Your task to perform on an android device: turn on notifications settings in the gmail app Image 0: 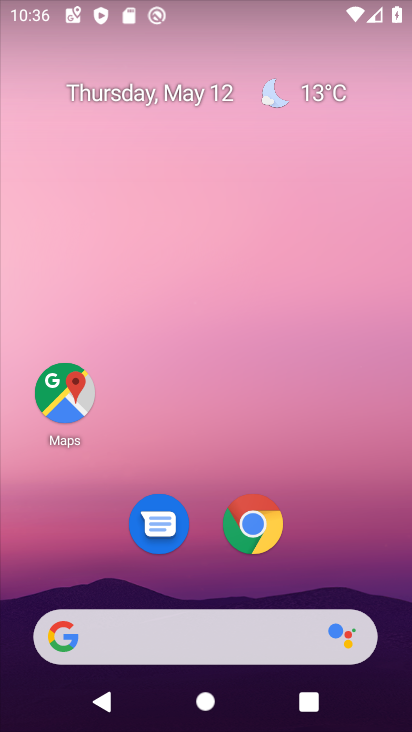
Step 0: drag from (334, 521) to (357, 46)
Your task to perform on an android device: turn on notifications settings in the gmail app Image 1: 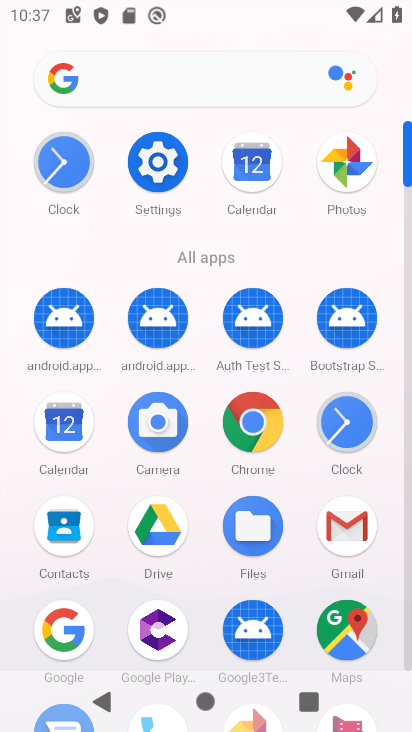
Step 1: click (340, 512)
Your task to perform on an android device: turn on notifications settings in the gmail app Image 2: 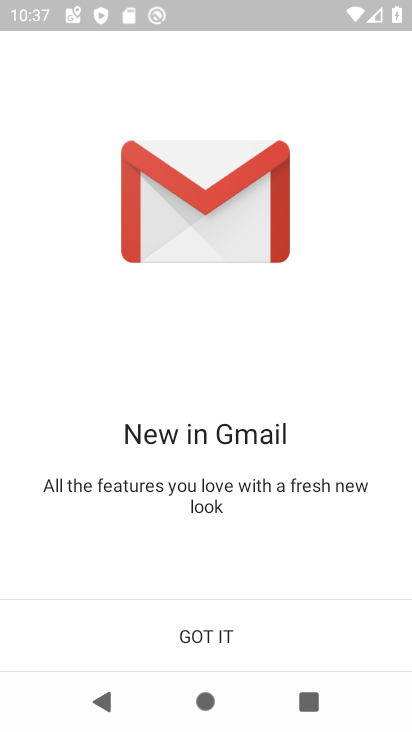
Step 2: click (283, 632)
Your task to perform on an android device: turn on notifications settings in the gmail app Image 3: 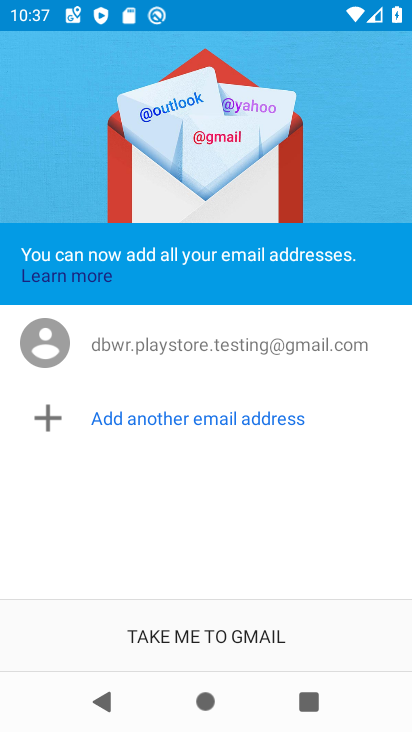
Step 3: click (283, 632)
Your task to perform on an android device: turn on notifications settings in the gmail app Image 4: 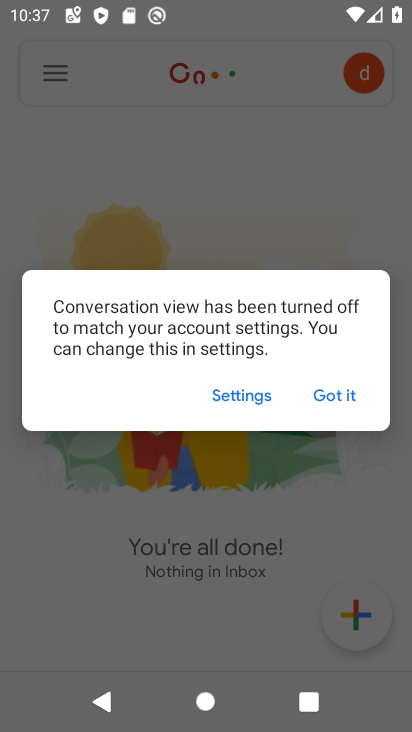
Step 4: click (347, 391)
Your task to perform on an android device: turn on notifications settings in the gmail app Image 5: 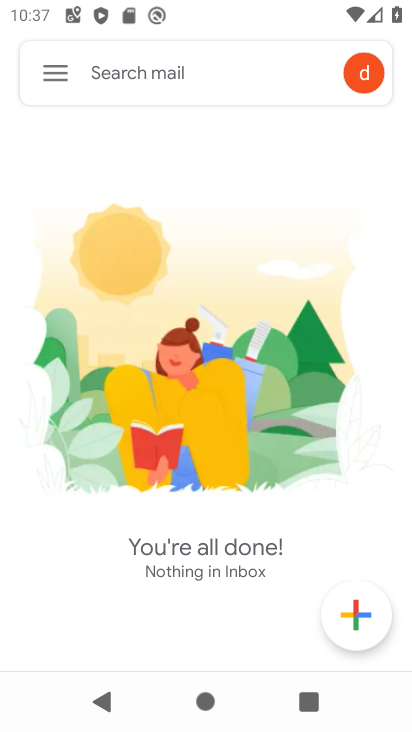
Step 5: click (55, 65)
Your task to perform on an android device: turn on notifications settings in the gmail app Image 6: 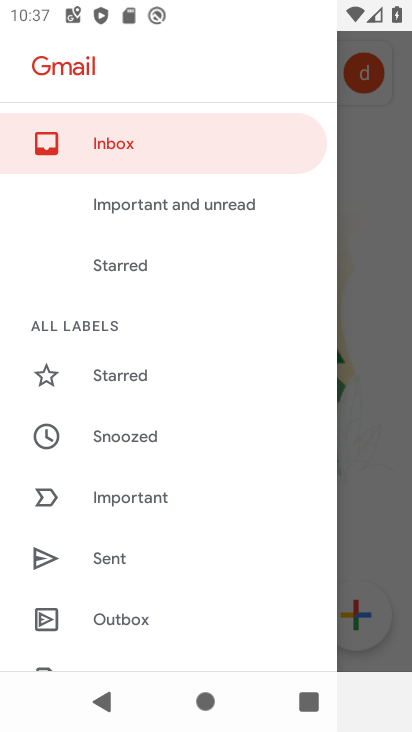
Step 6: drag from (173, 547) to (230, 0)
Your task to perform on an android device: turn on notifications settings in the gmail app Image 7: 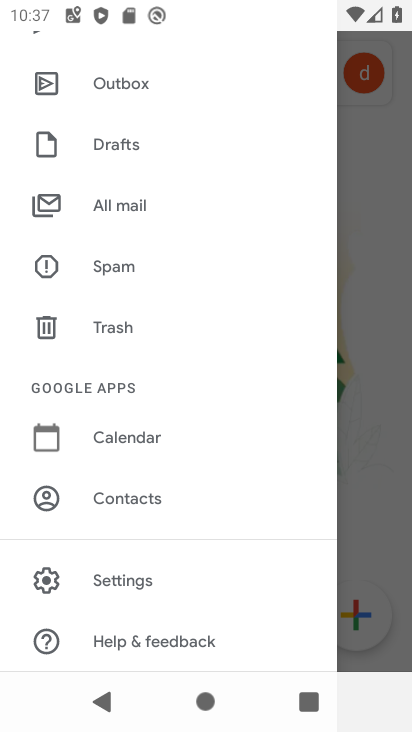
Step 7: click (117, 581)
Your task to perform on an android device: turn on notifications settings in the gmail app Image 8: 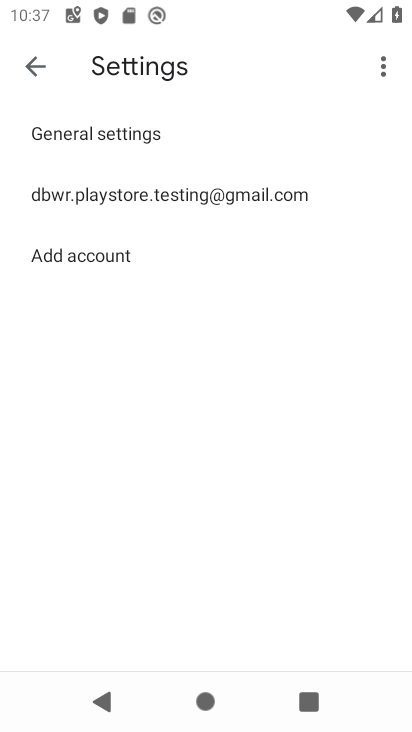
Step 8: click (234, 175)
Your task to perform on an android device: turn on notifications settings in the gmail app Image 9: 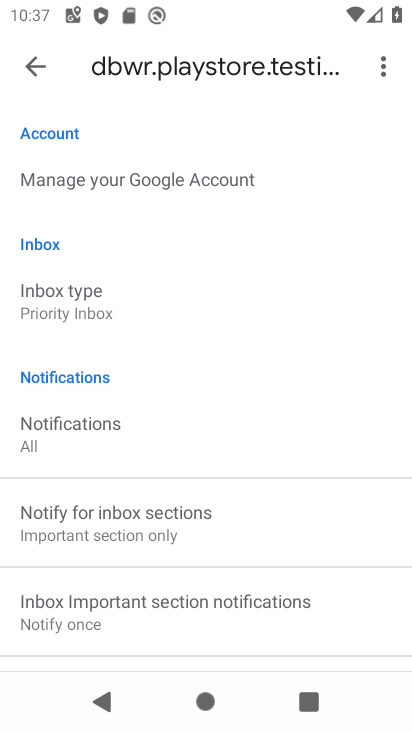
Step 9: drag from (231, 530) to (277, 96)
Your task to perform on an android device: turn on notifications settings in the gmail app Image 10: 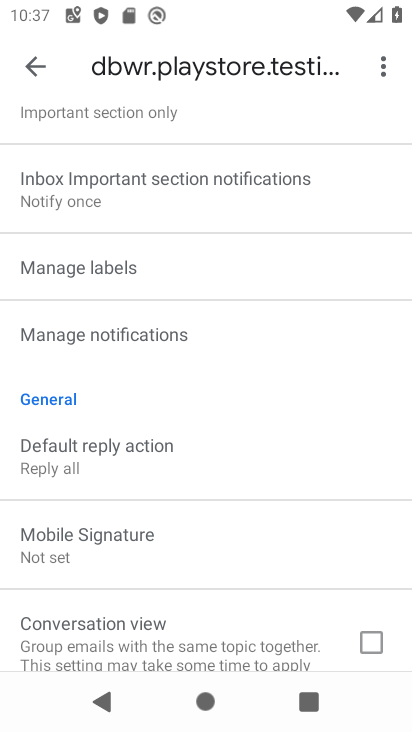
Step 10: click (191, 333)
Your task to perform on an android device: turn on notifications settings in the gmail app Image 11: 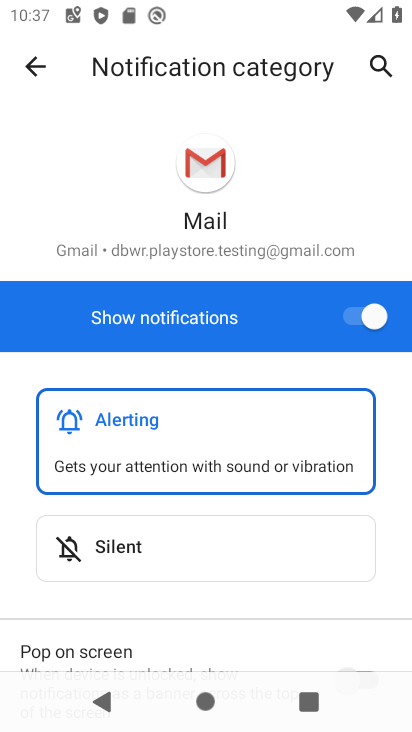
Step 11: task complete